Your task to perform on an android device: open a bookmark in the chrome app Image 0: 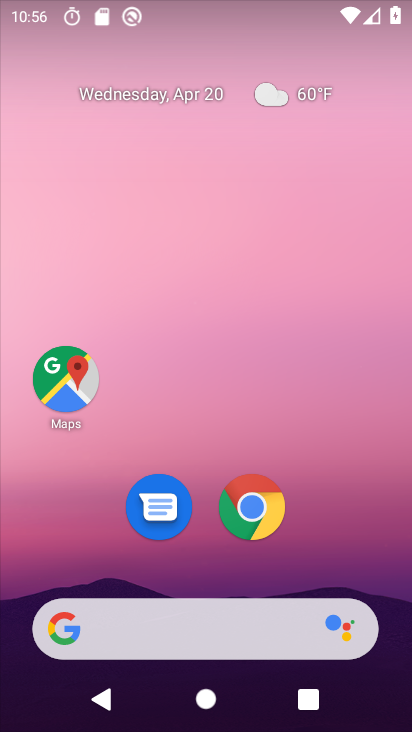
Step 0: click (257, 504)
Your task to perform on an android device: open a bookmark in the chrome app Image 1: 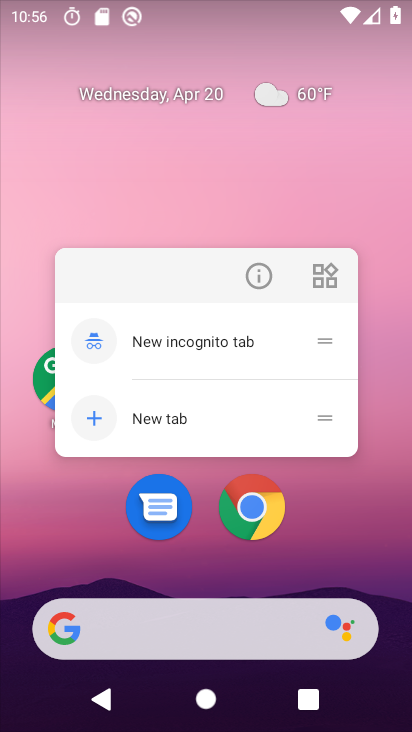
Step 1: click (262, 271)
Your task to perform on an android device: open a bookmark in the chrome app Image 2: 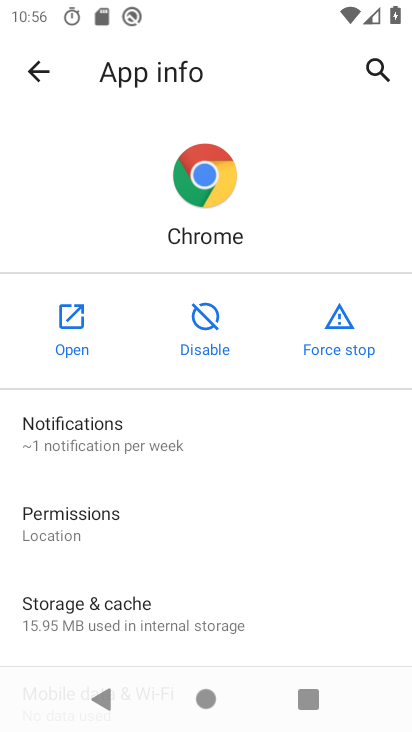
Step 2: click (78, 316)
Your task to perform on an android device: open a bookmark in the chrome app Image 3: 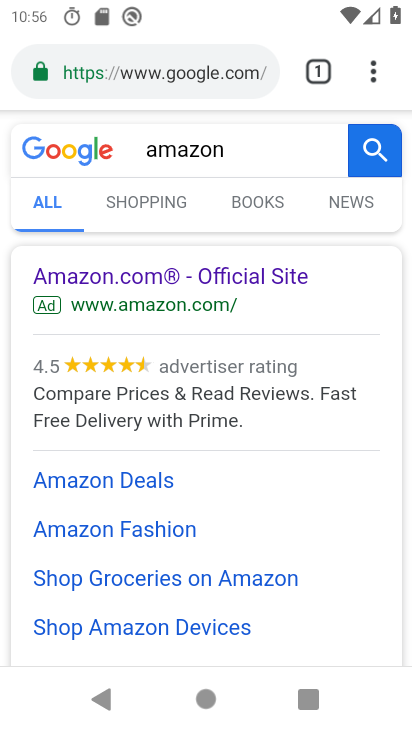
Step 3: click (372, 71)
Your task to perform on an android device: open a bookmark in the chrome app Image 4: 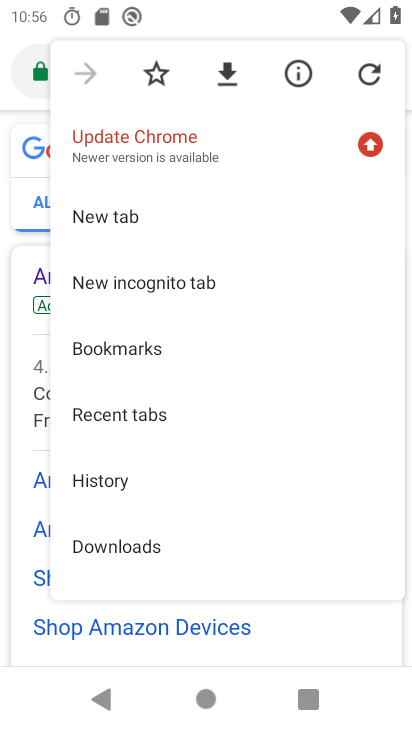
Step 4: drag from (173, 528) to (227, 153)
Your task to perform on an android device: open a bookmark in the chrome app Image 5: 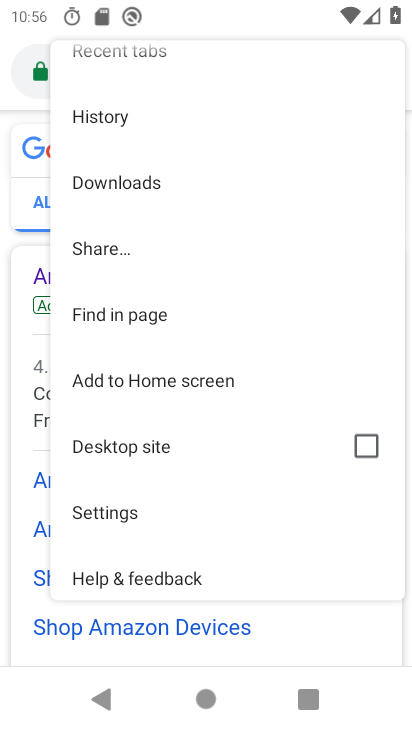
Step 5: drag from (166, 156) to (139, 449)
Your task to perform on an android device: open a bookmark in the chrome app Image 6: 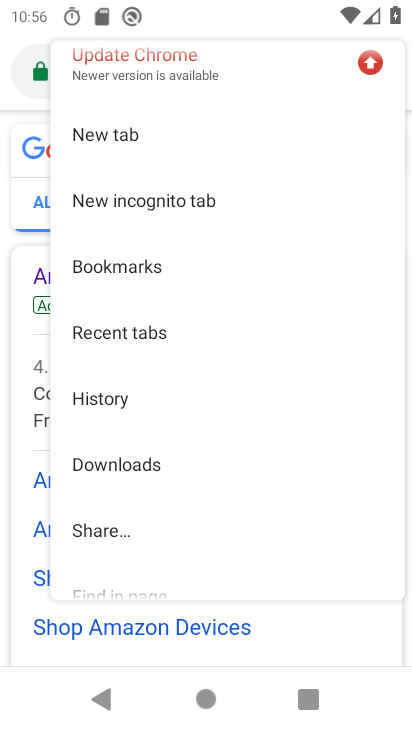
Step 6: click (125, 264)
Your task to perform on an android device: open a bookmark in the chrome app Image 7: 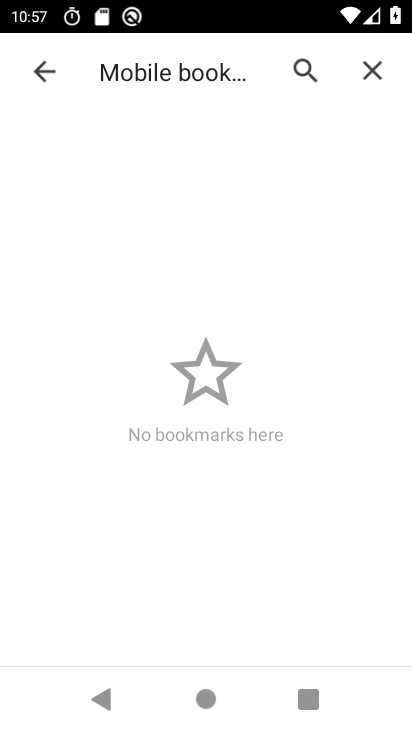
Step 7: task complete